Your task to perform on an android device: Show me the alarms in the clock app Image 0: 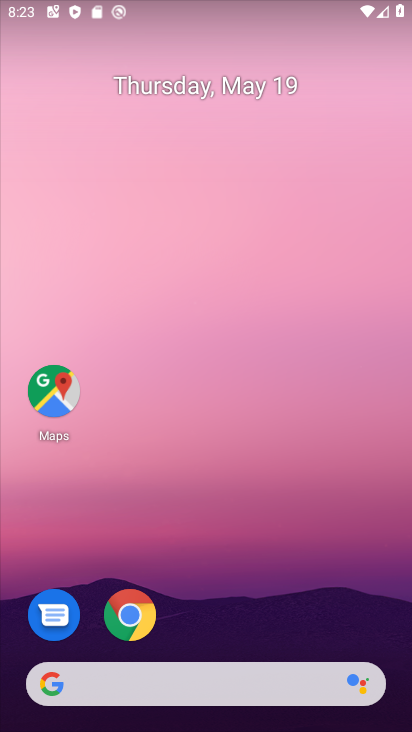
Step 0: drag from (260, 675) to (302, 116)
Your task to perform on an android device: Show me the alarms in the clock app Image 1: 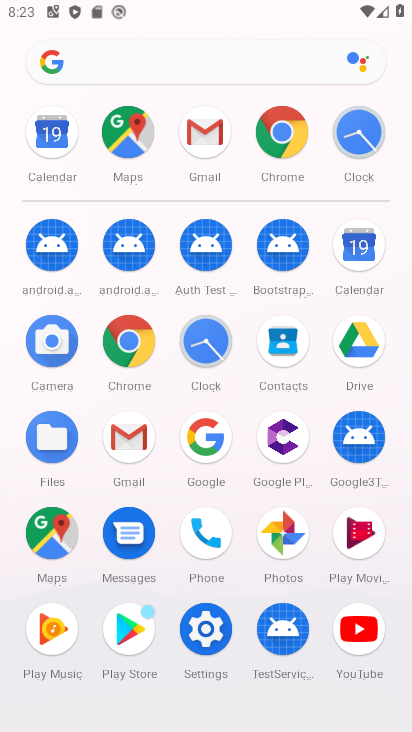
Step 1: click (222, 343)
Your task to perform on an android device: Show me the alarms in the clock app Image 2: 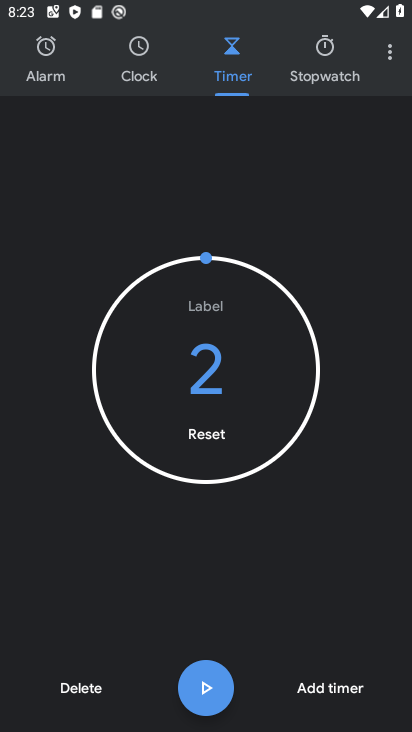
Step 2: click (47, 78)
Your task to perform on an android device: Show me the alarms in the clock app Image 3: 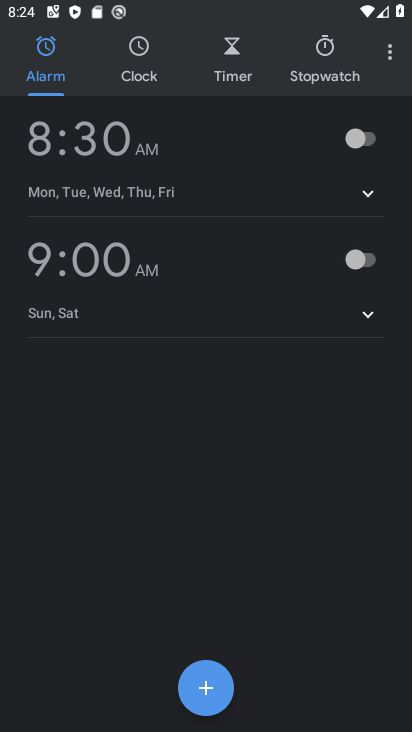
Step 3: task complete